Your task to perform on an android device: What's the weather today? Image 0: 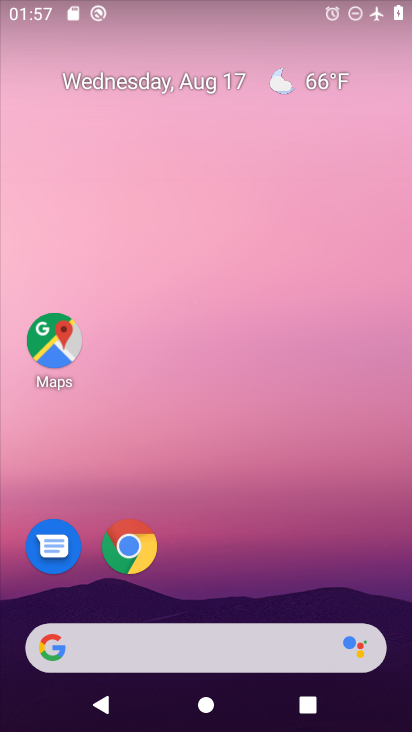
Step 0: click (52, 644)
Your task to perform on an android device: What's the weather today? Image 1: 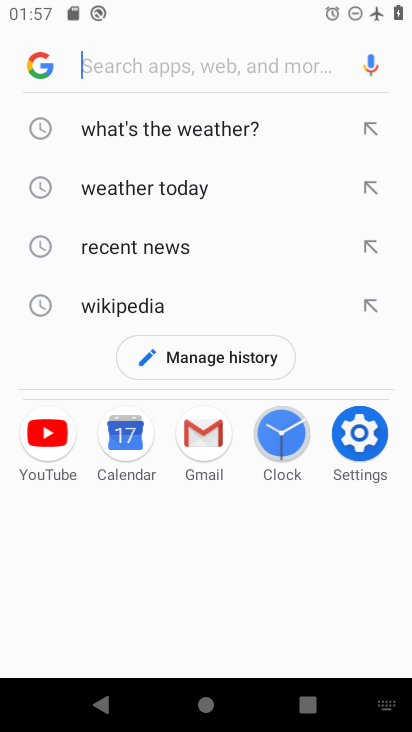
Step 1: click (153, 185)
Your task to perform on an android device: What's the weather today? Image 2: 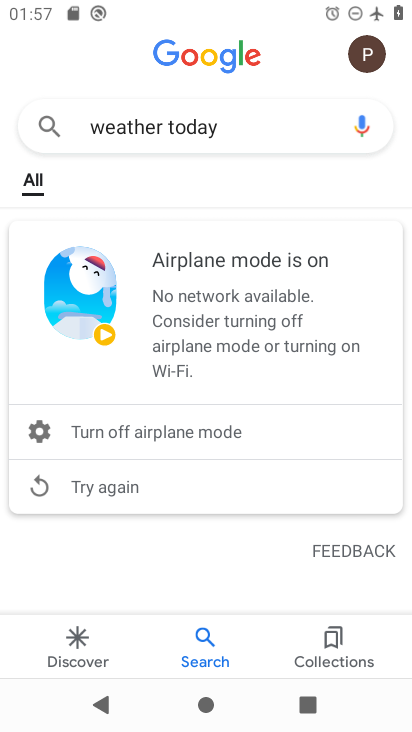
Step 2: task complete